Your task to perform on an android device: When is my next appointment? Image 0: 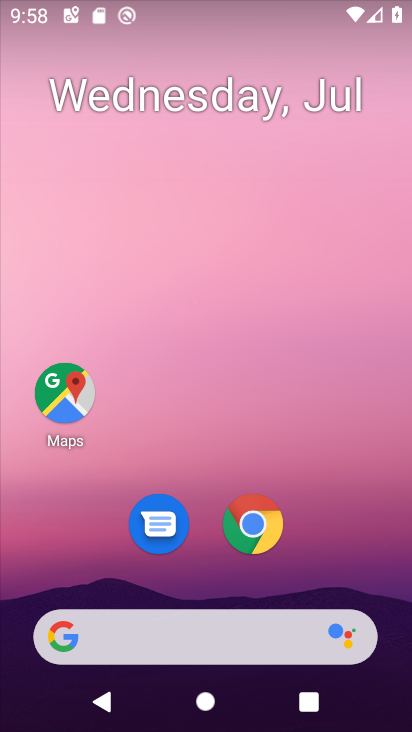
Step 0: drag from (336, 534) to (313, 149)
Your task to perform on an android device: When is my next appointment? Image 1: 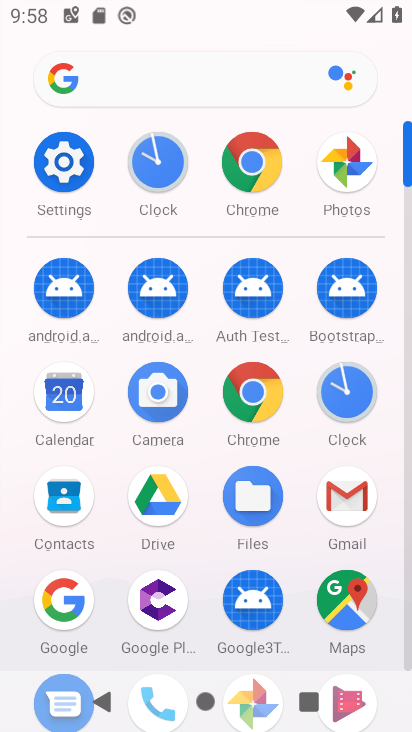
Step 1: click (79, 399)
Your task to perform on an android device: When is my next appointment? Image 2: 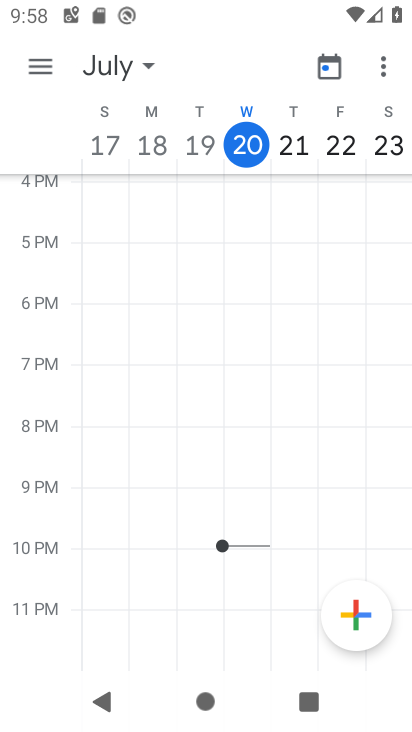
Step 2: click (241, 136)
Your task to perform on an android device: When is my next appointment? Image 3: 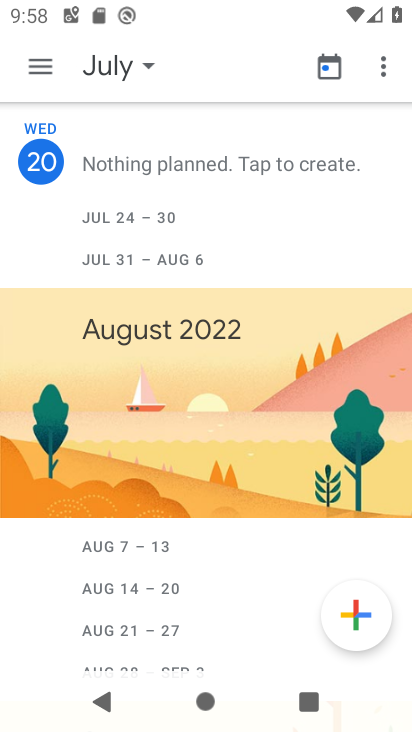
Step 3: task complete